Your task to perform on an android device: add a contact in the contacts app Image 0: 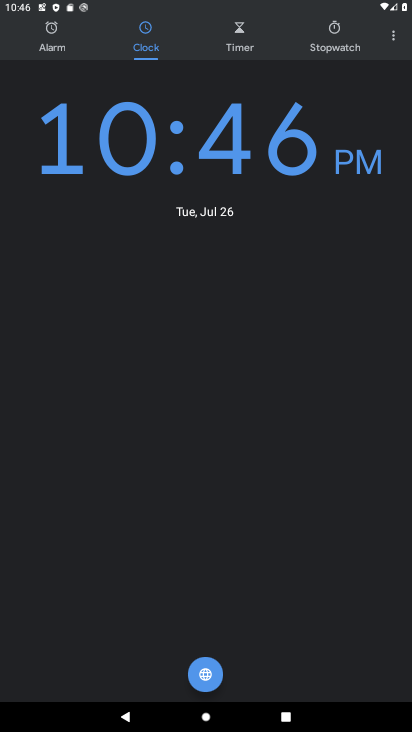
Step 0: press back button
Your task to perform on an android device: add a contact in the contacts app Image 1: 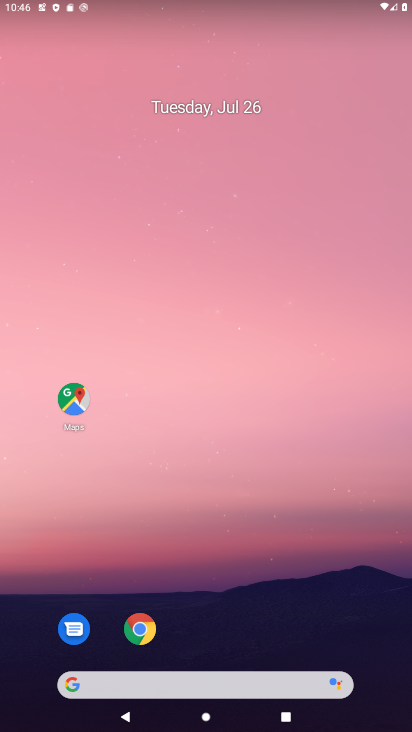
Step 1: drag from (180, 602) to (202, 104)
Your task to perform on an android device: add a contact in the contacts app Image 2: 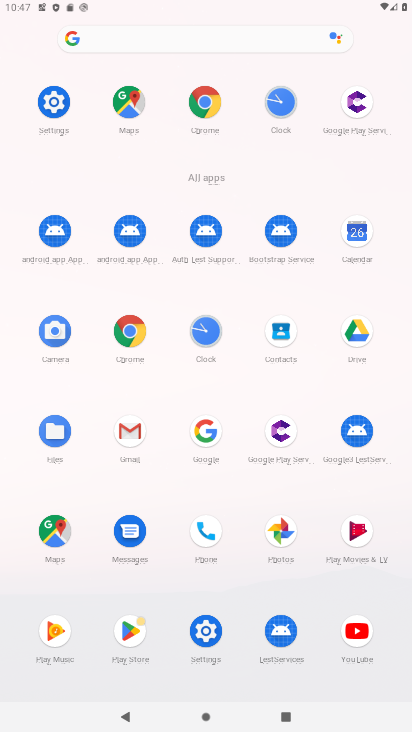
Step 2: click (277, 338)
Your task to perform on an android device: add a contact in the contacts app Image 3: 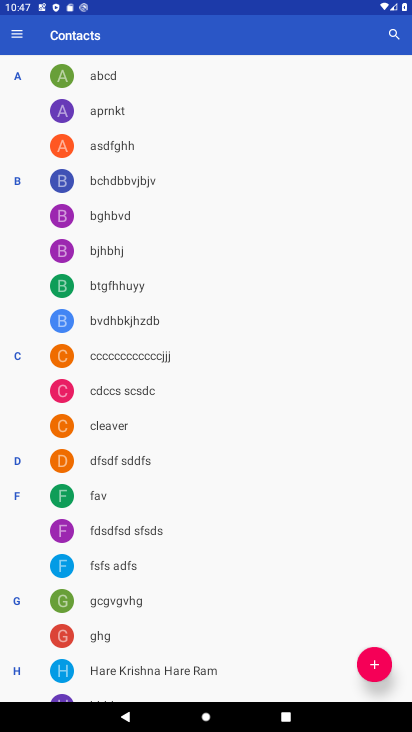
Step 3: click (381, 654)
Your task to perform on an android device: add a contact in the contacts app Image 4: 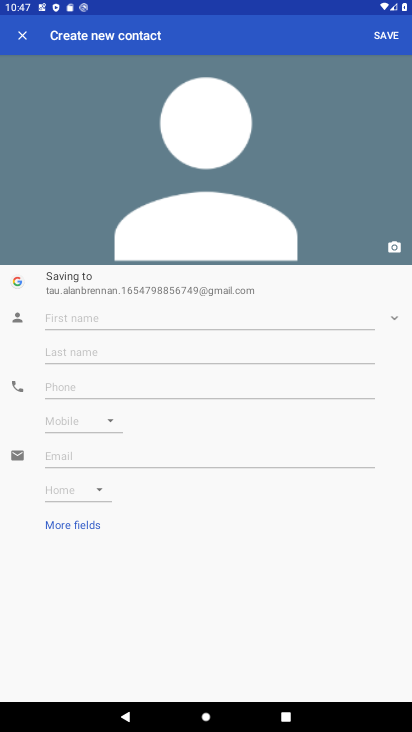
Step 4: click (86, 310)
Your task to perform on an android device: add a contact in the contacts app Image 5: 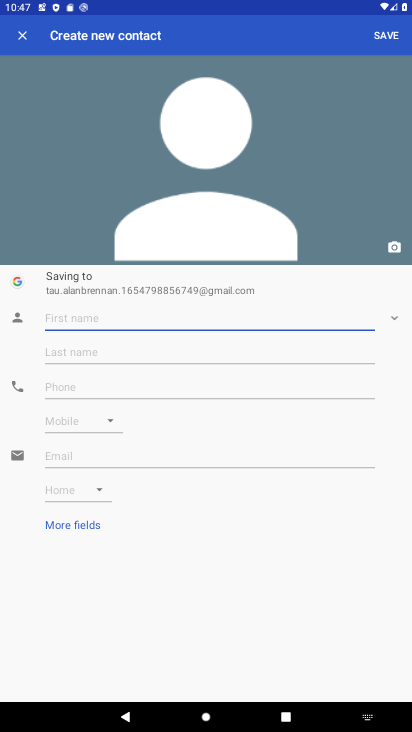
Step 5: type "narula"
Your task to perform on an android device: add a contact in the contacts app Image 6: 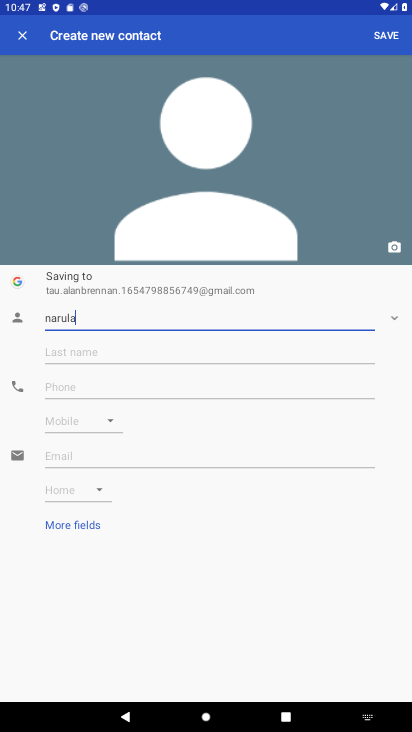
Step 6: click (220, 352)
Your task to perform on an android device: add a contact in the contacts app Image 7: 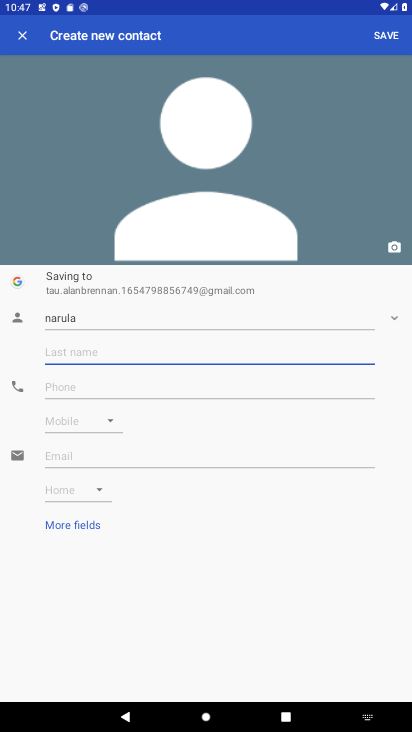
Step 7: type "Danish"
Your task to perform on an android device: add a contact in the contacts app Image 8: 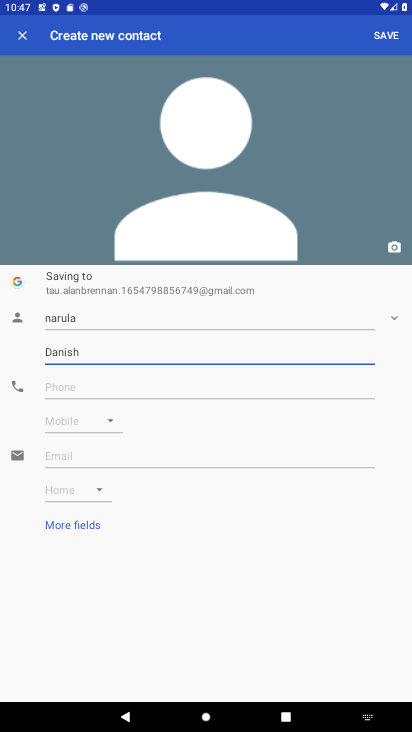
Step 8: click (163, 377)
Your task to perform on an android device: add a contact in the contacts app Image 9: 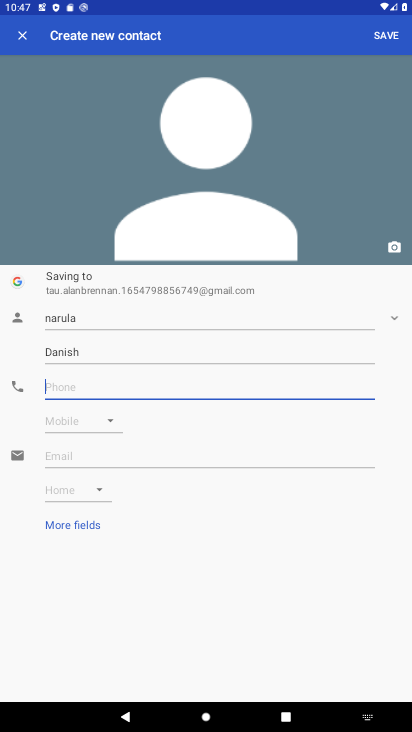
Step 9: type "8778878890"
Your task to perform on an android device: add a contact in the contacts app Image 10: 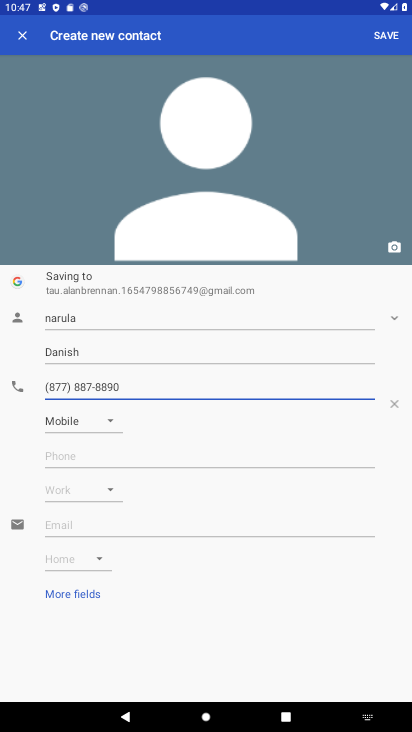
Step 10: click (389, 33)
Your task to perform on an android device: add a contact in the contacts app Image 11: 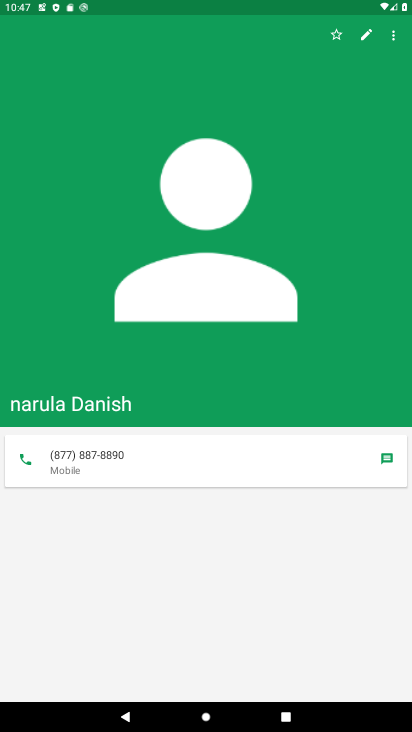
Step 11: task complete